Your task to perform on an android device: change text size in settings app Image 0: 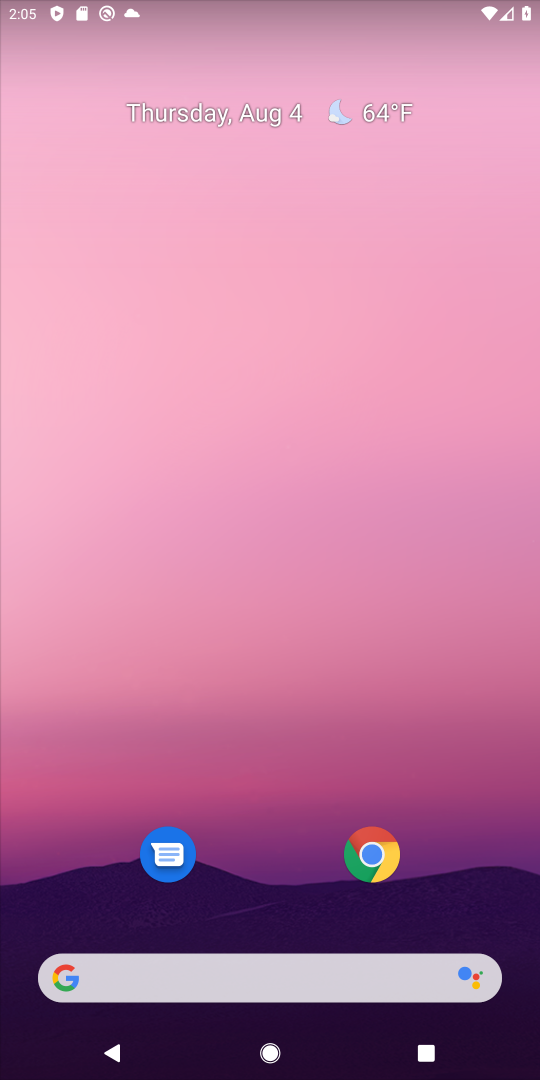
Step 0: drag from (301, 722) to (402, 339)
Your task to perform on an android device: change text size in settings app Image 1: 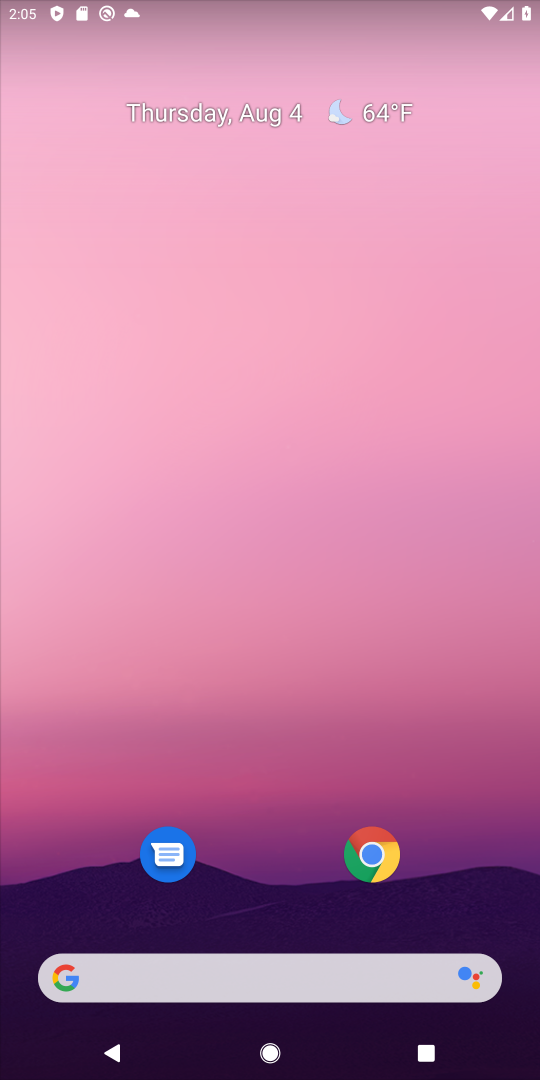
Step 1: drag from (264, 747) to (281, 516)
Your task to perform on an android device: change text size in settings app Image 2: 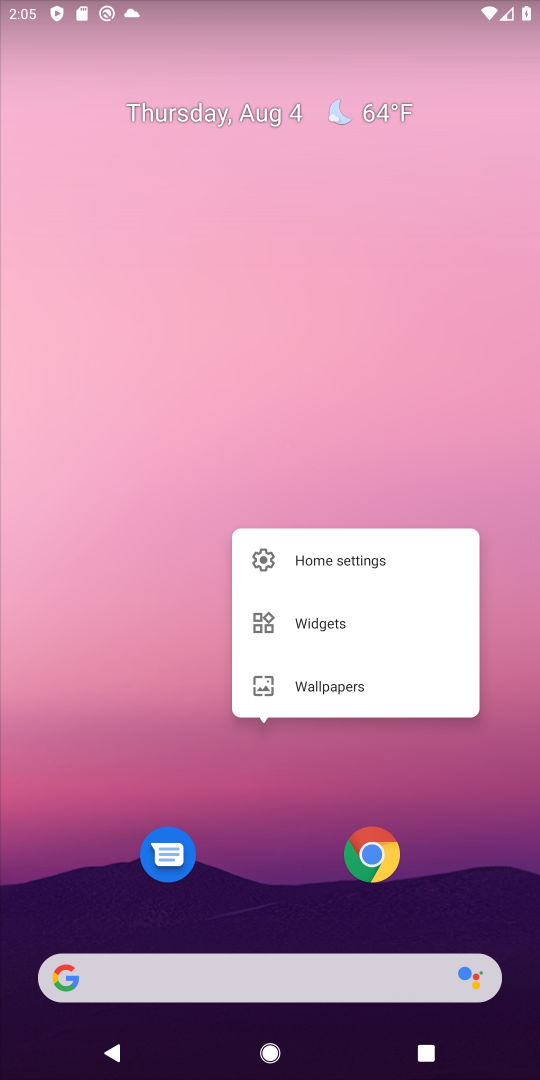
Step 2: click (257, 761)
Your task to perform on an android device: change text size in settings app Image 3: 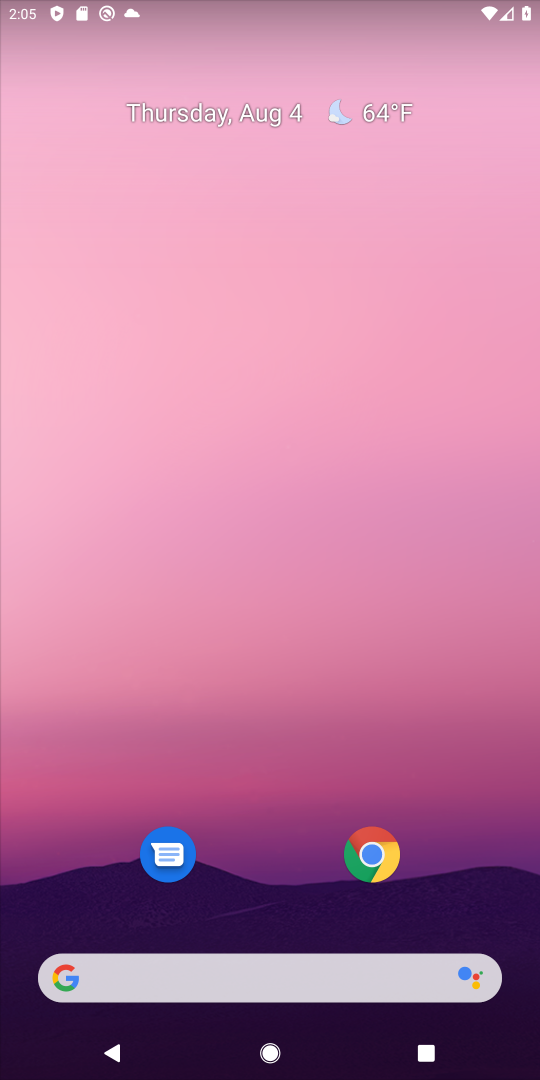
Step 3: drag from (257, 761) to (278, 311)
Your task to perform on an android device: change text size in settings app Image 4: 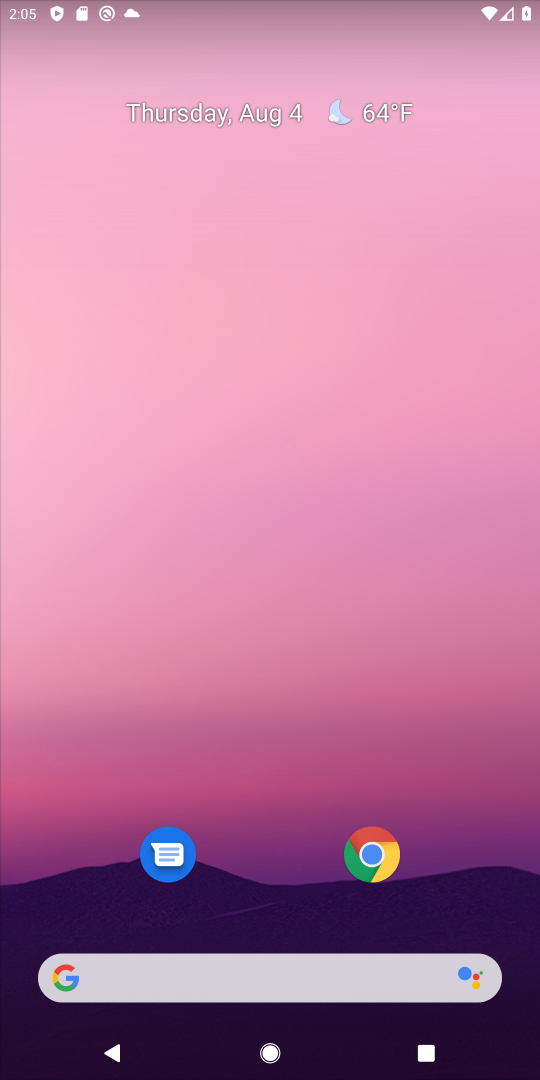
Step 4: drag from (278, 817) to (303, 343)
Your task to perform on an android device: change text size in settings app Image 5: 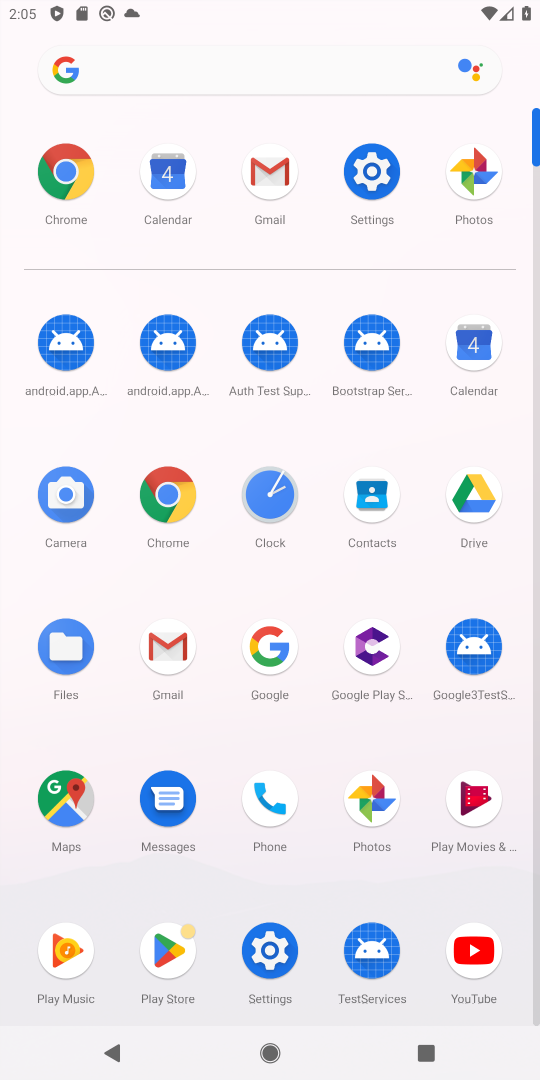
Step 5: click (367, 184)
Your task to perform on an android device: change text size in settings app Image 6: 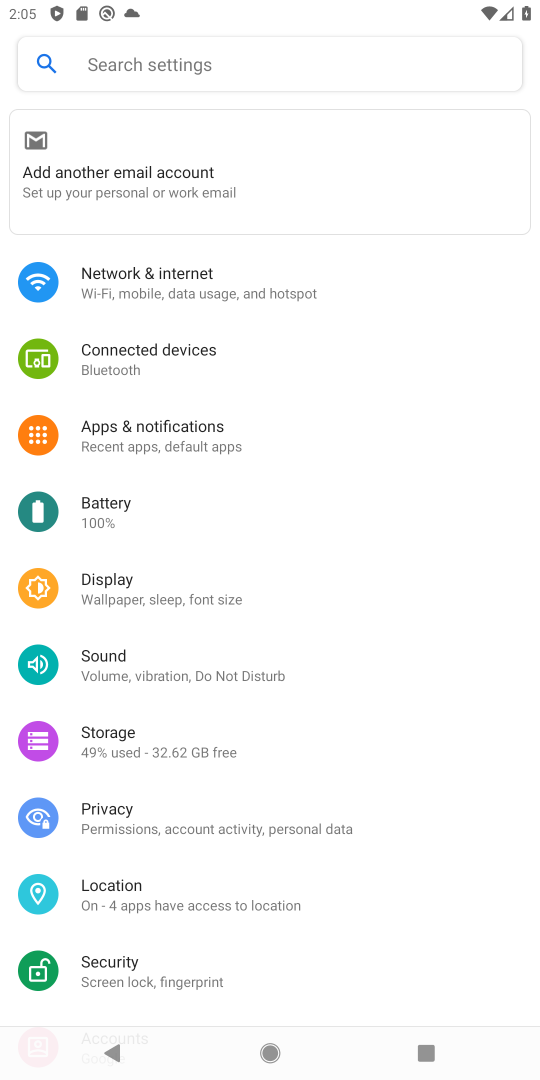
Step 6: click (107, 596)
Your task to perform on an android device: change text size in settings app Image 7: 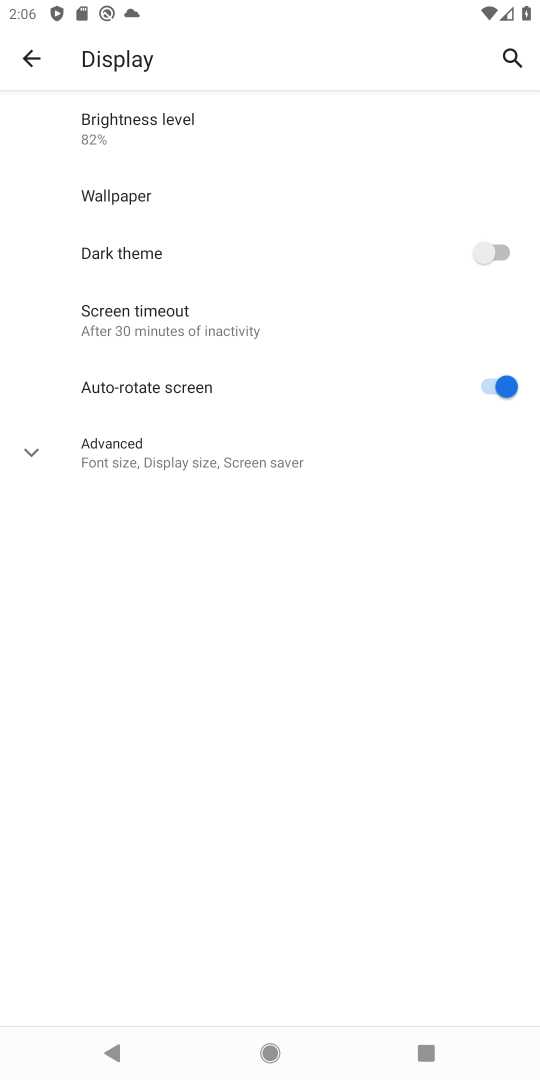
Step 7: click (157, 464)
Your task to perform on an android device: change text size in settings app Image 8: 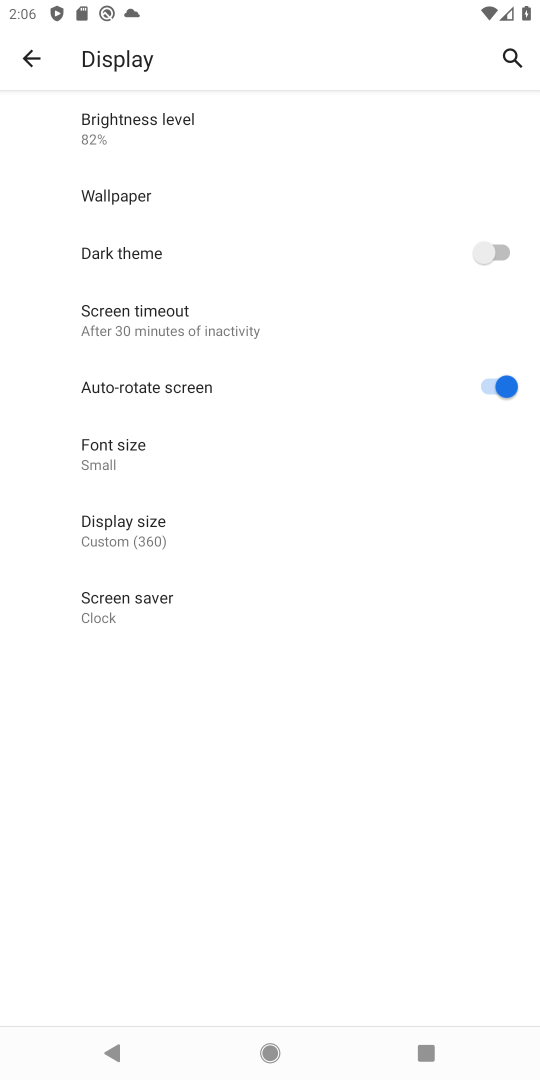
Step 8: click (115, 449)
Your task to perform on an android device: change text size in settings app Image 9: 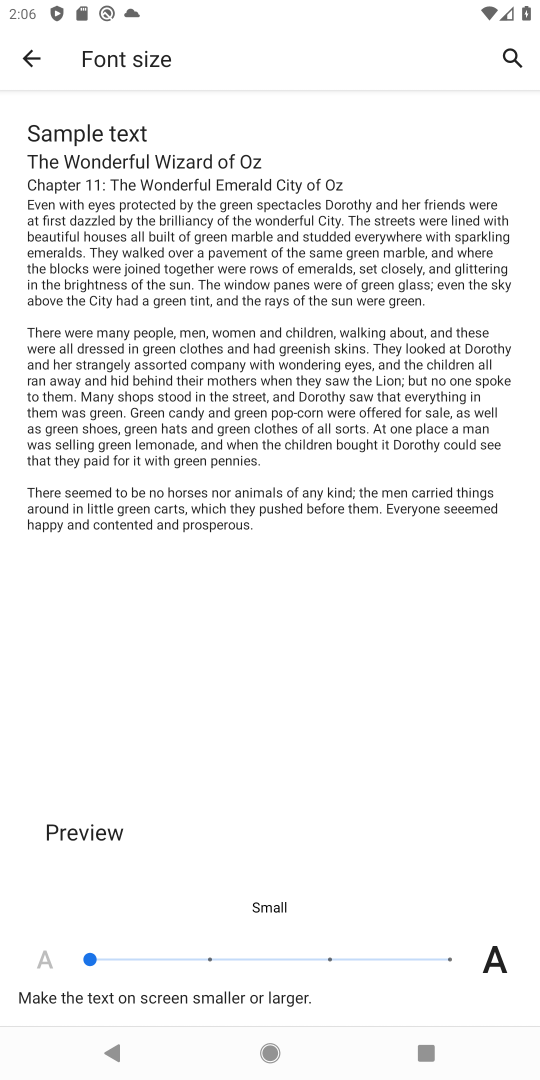
Step 9: click (115, 957)
Your task to perform on an android device: change text size in settings app Image 10: 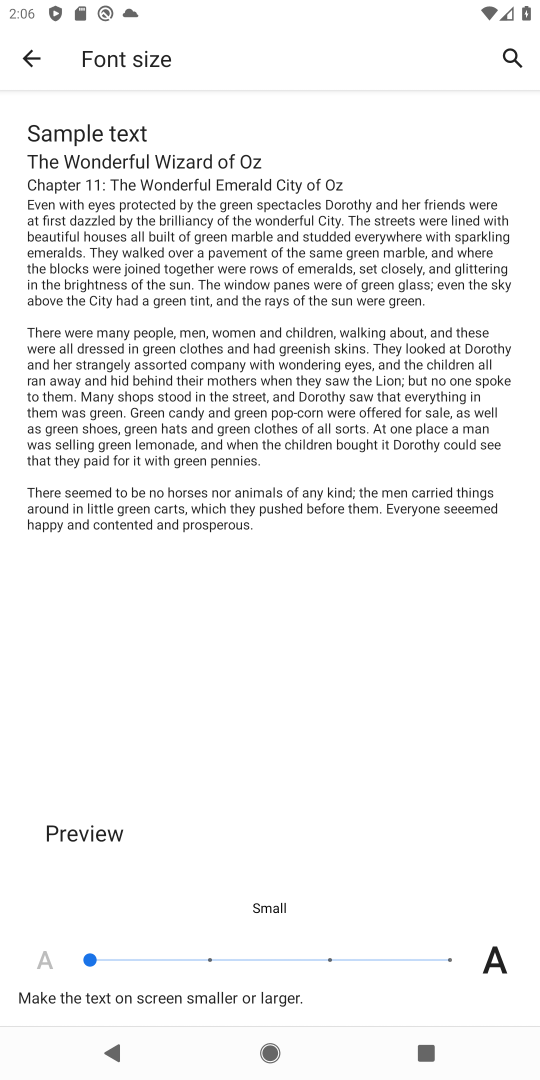
Step 10: click (130, 959)
Your task to perform on an android device: change text size in settings app Image 11: 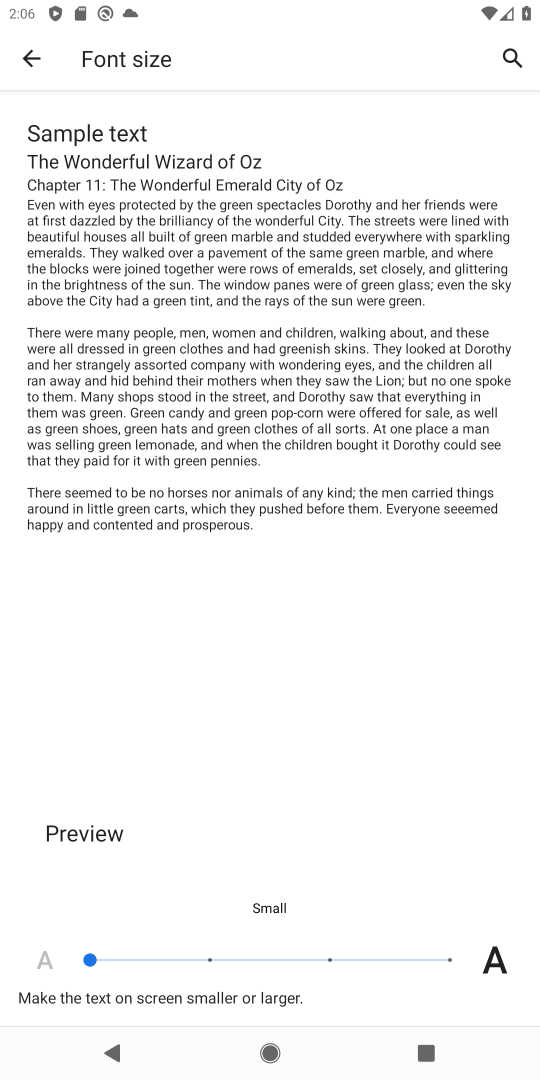
Step 11: task complete